Your task to perform on an android device: Open Chrome and go to the settings page Image 0: 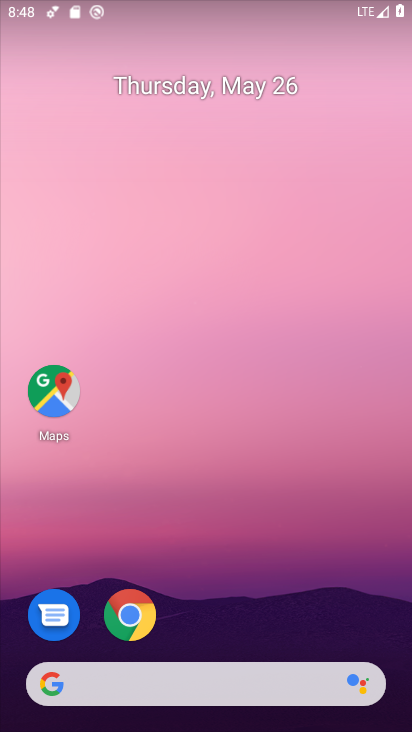
Step 0: click (123, 602)
Your task to perform on an android device: Open Chrome and go to the settings page Image 1: 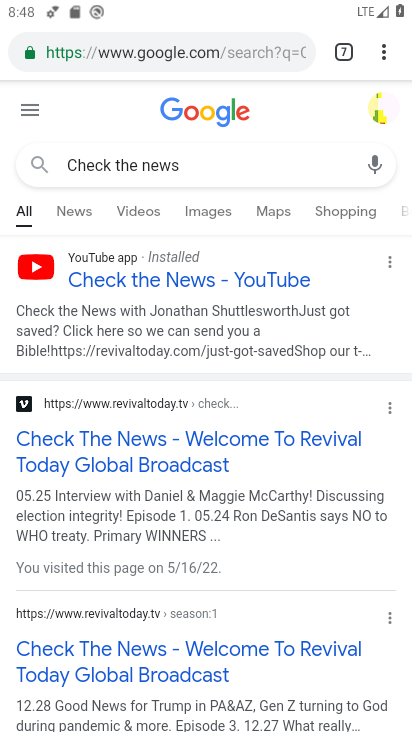
Step 1: click (382, 45)
Your task to perform on an android device: Open Chrome and go to the settings page Image 2: 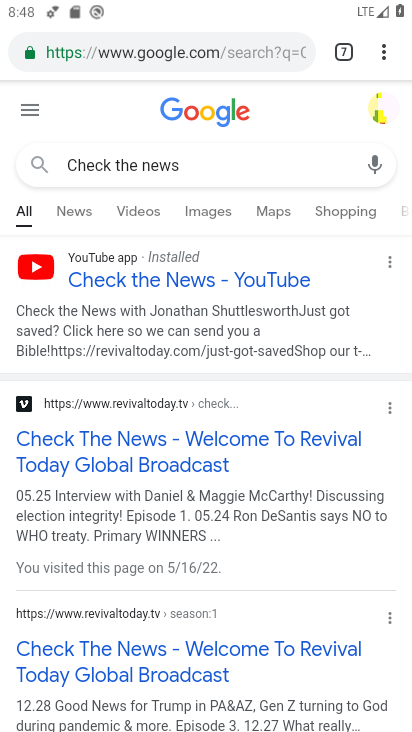
Step 2: click (382, 47)
Your task to perform on an android device: Open Chrome and go to the settings page Image 3: 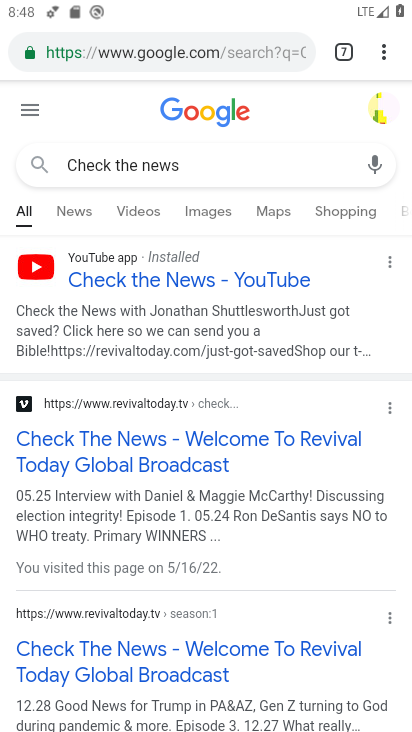
Step 3: click (379, 52)
Your task to perform on an android device: Open Chrome and go to the settings page Image 4: 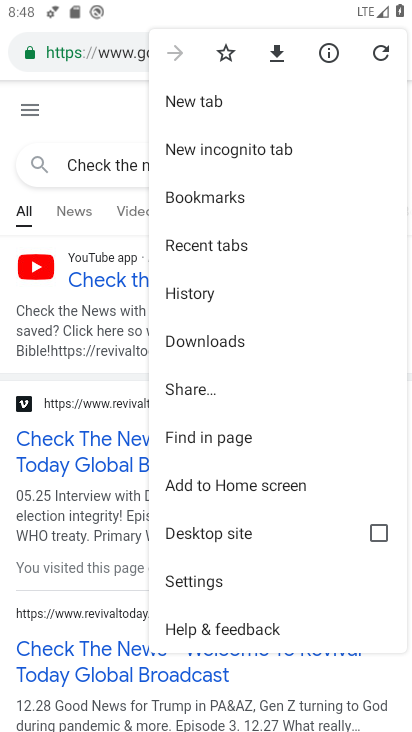
Step 4: click (209, 573)
Your task to perform on an android device: Open Chrome and go to the settings page Image 5: 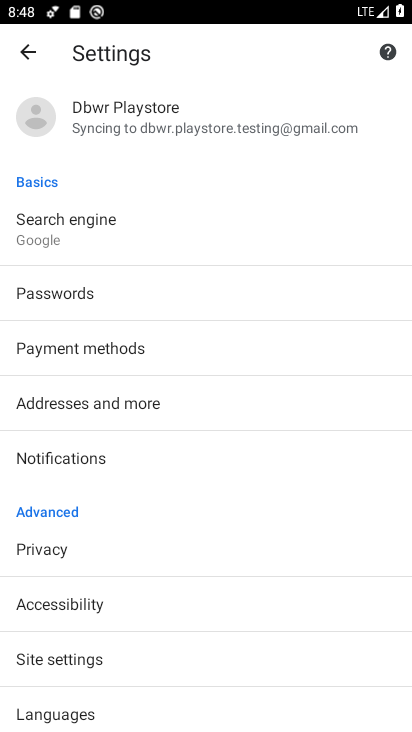
Step 5: task complete